Your task to perform on an android device: Search for pizza restaurants on Maps Image 0: 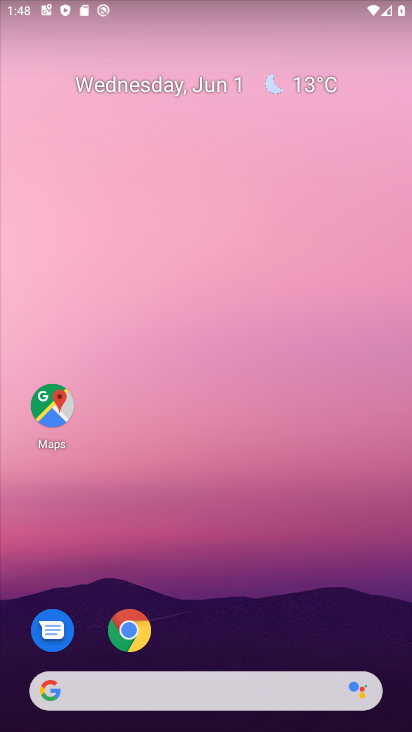
Step 0: press home button
Your task to perform on an android device: Search for pizza restaurants on Maps Image 1: 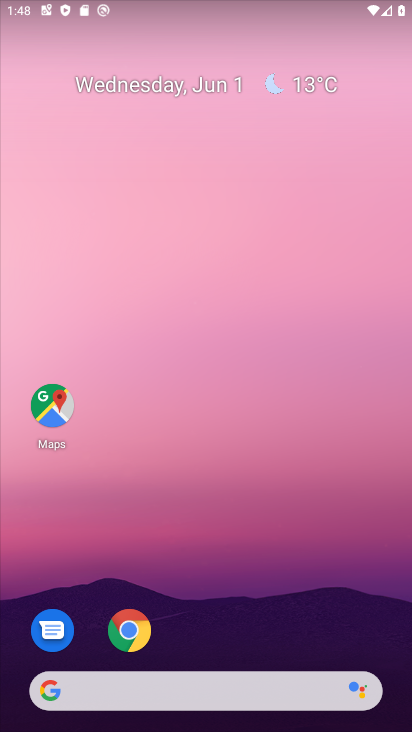
Step 1: click (51, 401)
Your task to perform on an android device: Search for pizza restaurants on Maps Image 2: 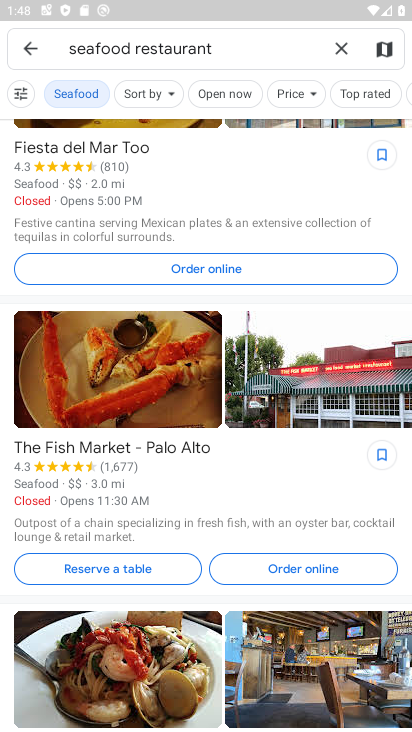
Step 2: click (343, 44)
Your task to perform on an android device: Search for pizza restaurants on Maps Image 3: 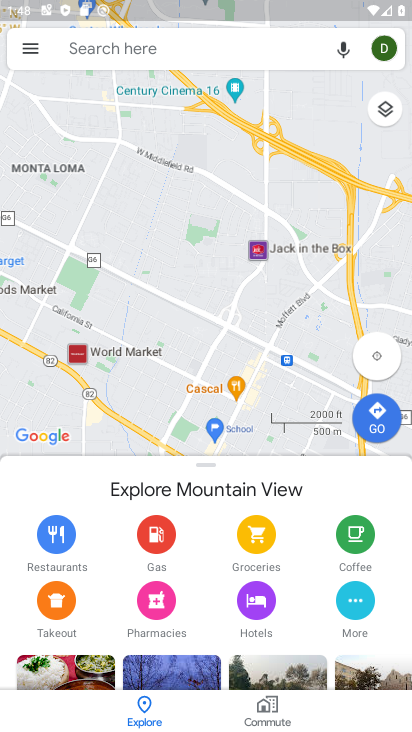
Step 3: click (121, 40)
Your task to perform on an android device: Search for pizza restaurants on Maps Image 4: 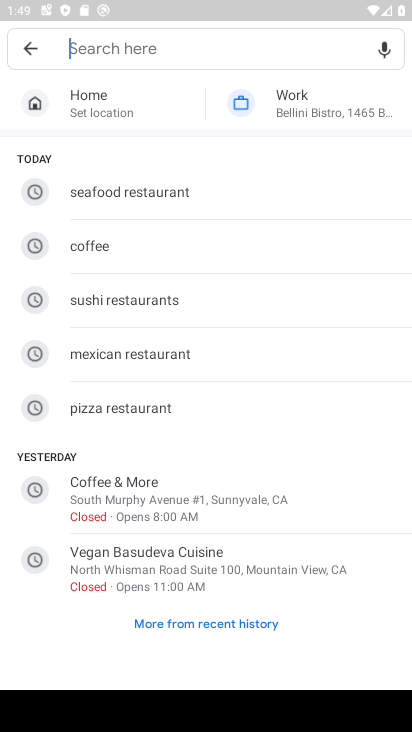
Step 4: click (133, 405)
Your task to perform on an android device: Search for pizza restaurants on Maps Image 5: 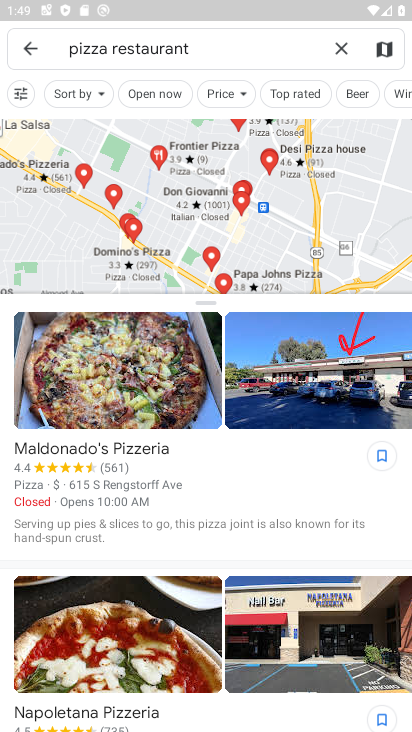
Step 5: task complete